Your task to perform on an android device: Go to Amazon Image 0: 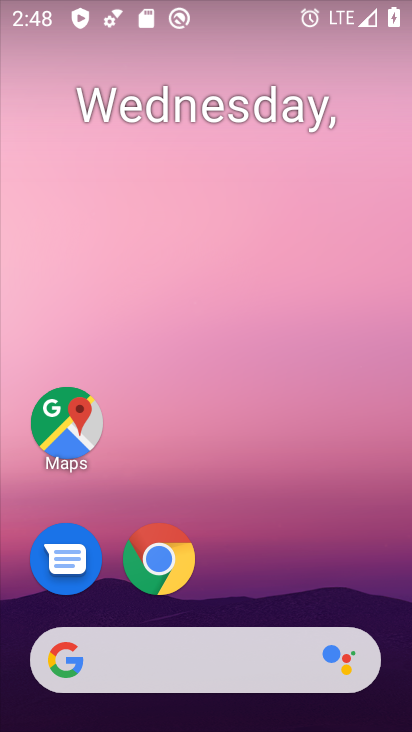
Step 0: click (176, 555)
Your task to perform on an android device: Go to Amazon Image 1: 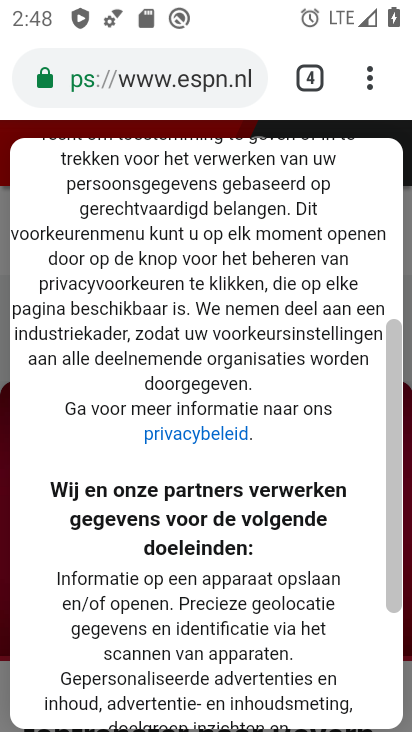
Step 1: click (316, 74)
Your task to perform on an android device: Go to Amazon Image 2: 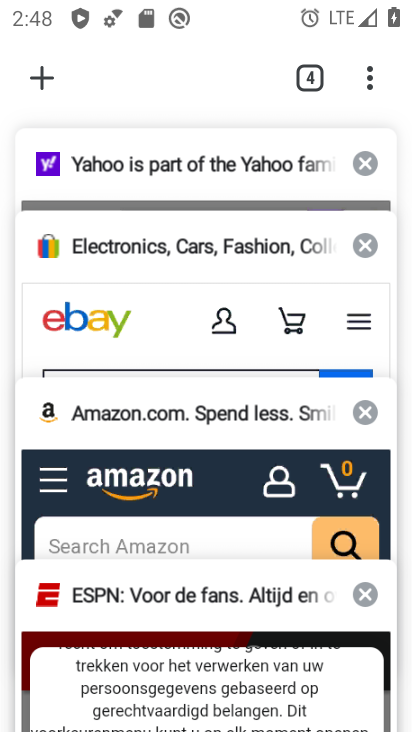
Step 2: click (89, 459)
Your task to perform on an android device: Go to Amazon Image 3: 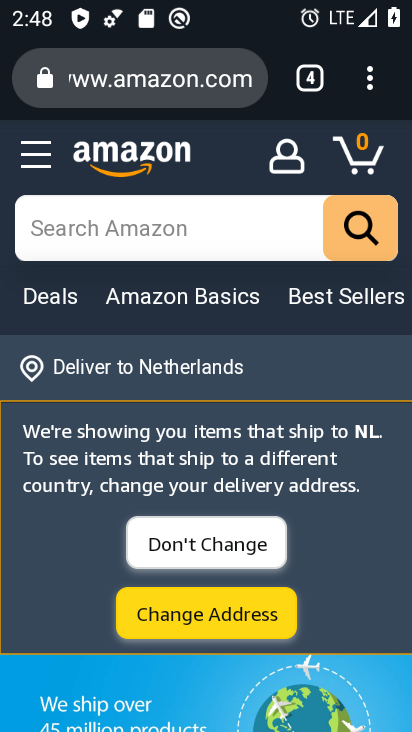
Step 3: task complete